Your task to perform on an android device: toggle data saver in the chrome app Image 0: 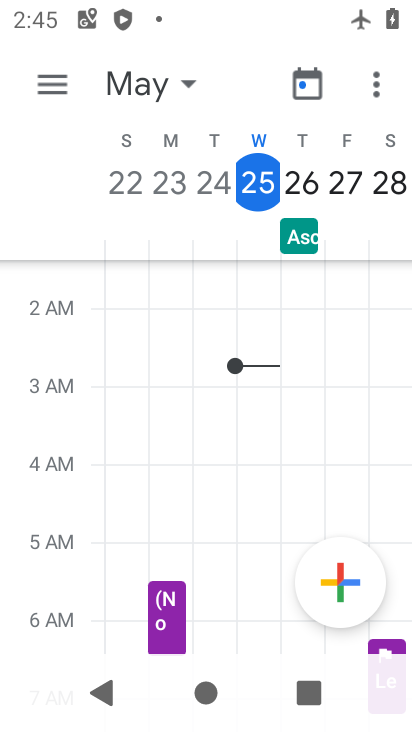
Step 0: press home button
Your task to perform on an android device: toggle data saver in the chrome app Image 1: 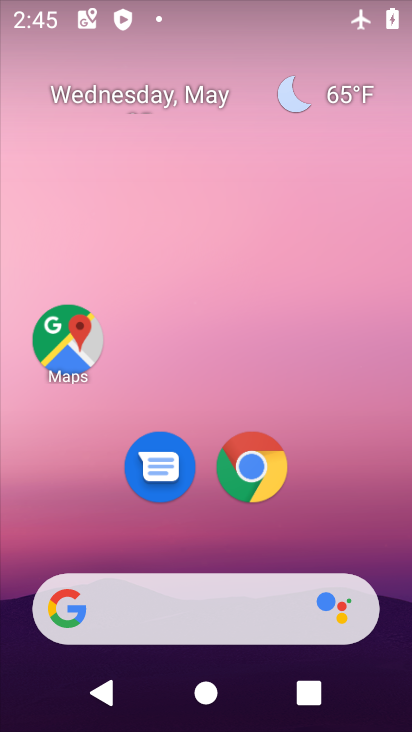
Step 1: click (274, 466)
Your task to perform on an android device: toggle data saver in the chrome app Image 2: 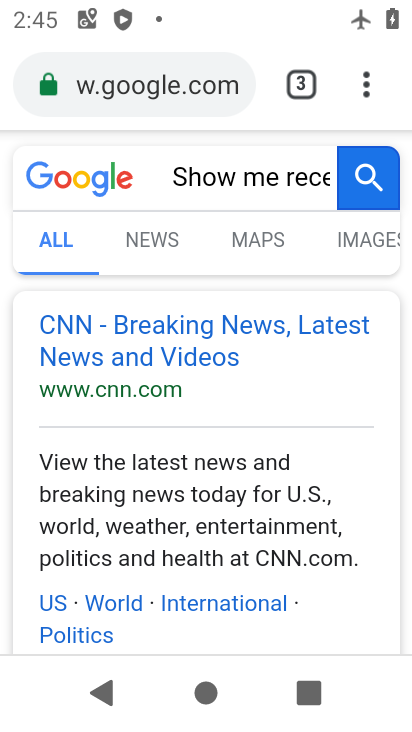
Step 2: click (387, 81)
Your task to perform on an android device: toggle data saver in the chrome app Image 3: 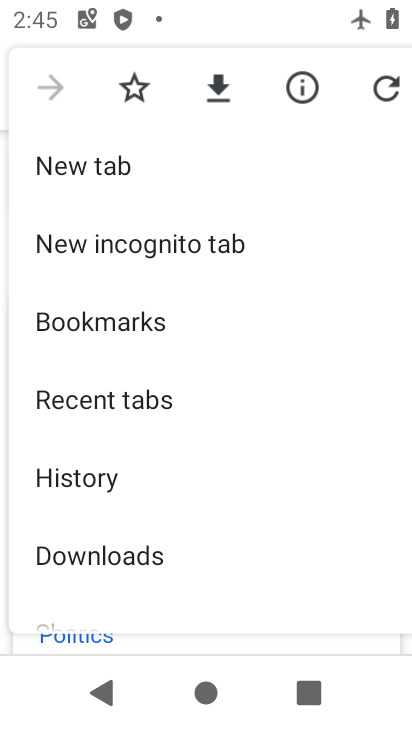
Step 3: drag from (150, 585) to (204, 230)
Your task to perform on an android device: toggle data saver in the chrome app Image 4: 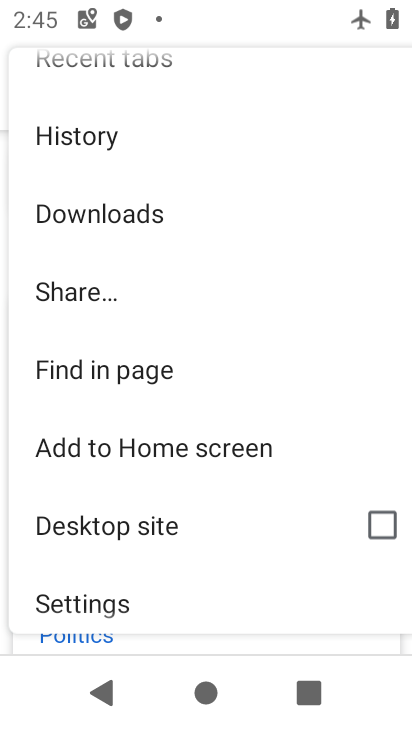
Step 4: click (107, 598)
Your task to perform on an android device: toggle data saver in the chrome app Image 5: 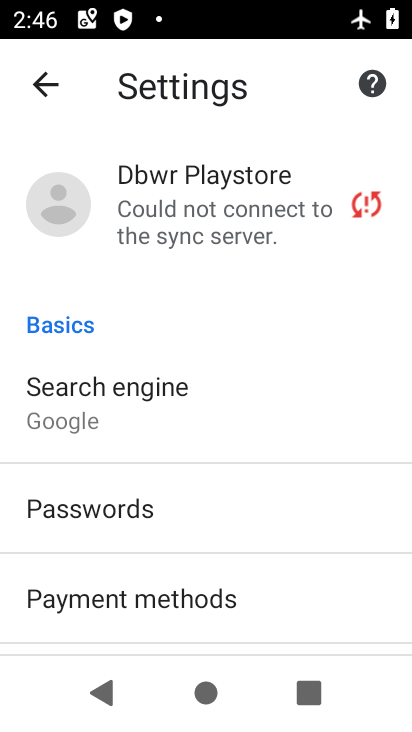
Step 5: drag from (230, 546) to (277, 272)
Your task to perform on an android device: toggle data saver in the chrome app Image 6: 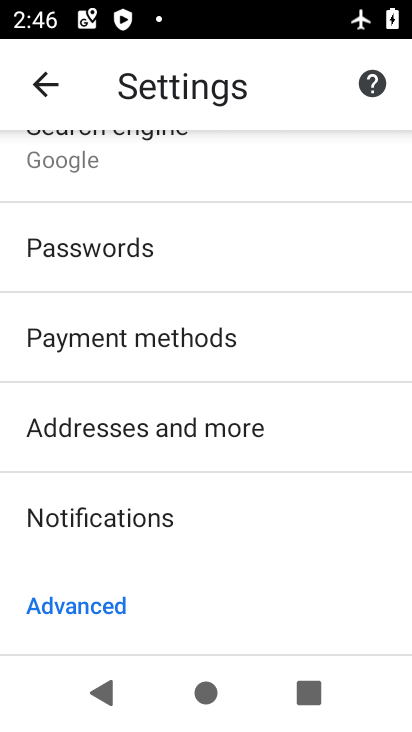
Step 6: drag from (170, 552) to (211, 288)
Your task to perform on an android device: toggle data saver in the chrome app Image 7: 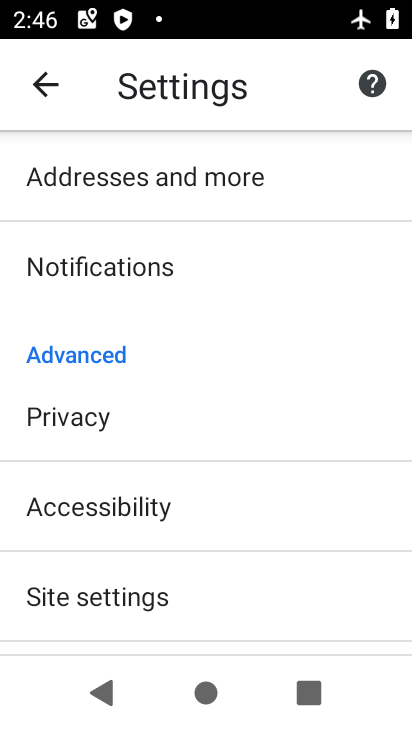
Step 7: drag from (146, 530) to (234, 214)
Your task to perform on an android device: toggle data saver in the chrome app Image 8: 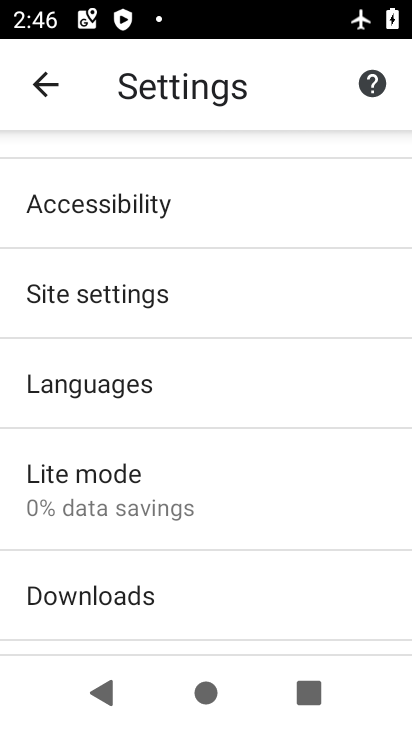
Step 8: click (122, 494)
Your task to perform on an android device: toggle data saver in the chrome app Image 9: 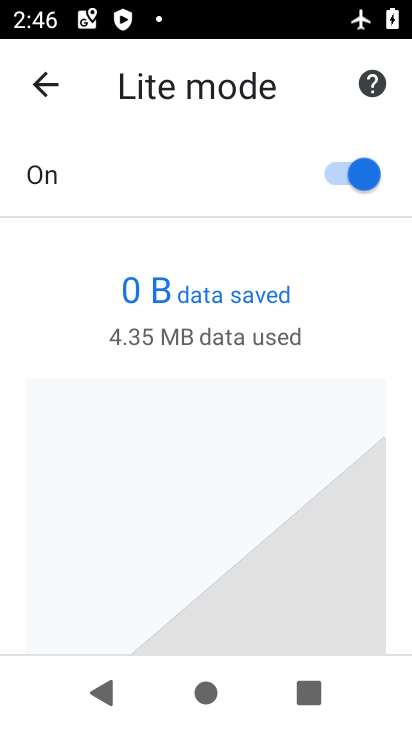
Step 9: click (336, 169)
Your task to perform on an android device: toggle data saver in the chrome app Image 10: 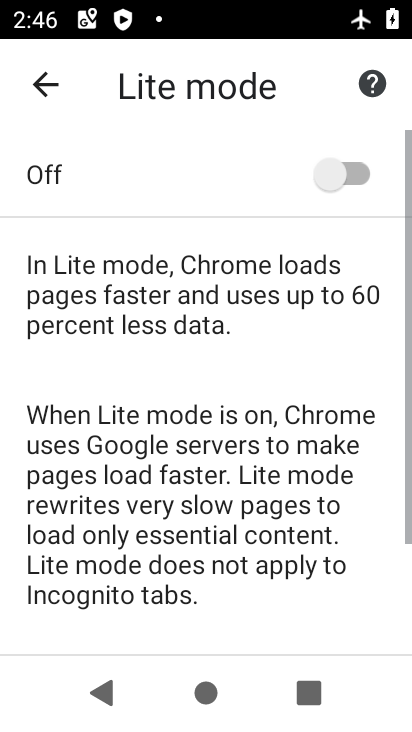
Step 10: task complete